Your task to perform on an android device: Empty the shopping cart on ebay.com. Search for dell xps on ebay.com, select the first entry, add it to the cart, then select checkout. Image 0: 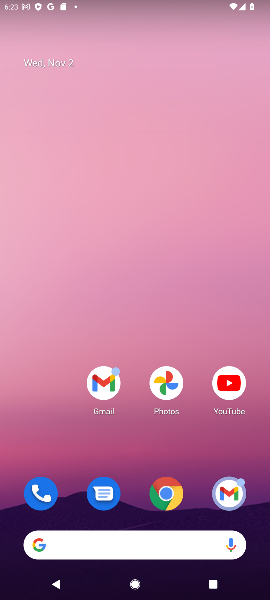
Step 0: drag from (130, 512) to (137, 164)
Your task to perform on an android device: Empty the shopping cart on ebay.com. Search for dell xps on ebay.com, select the first entry, add it to the cart, then select checkout. Image 1: 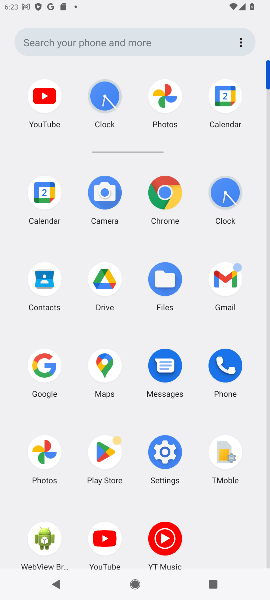
Step 1: click (47, 369)
Your task to perform on an android device: Empty the shopping cart on ebay.com. Search for dell xps on ebay.com, select the first entry, add it to the cart, then select checkout. Image 2: 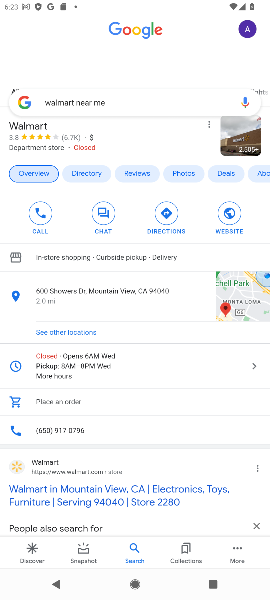
Step 2: click (92, 100)
Your task to perform on an android device: Empty the shopping cart on ebay.com. Search for dell xps on ebay.com, select the first entry, add it to the cart, then select checkout. Image 3: 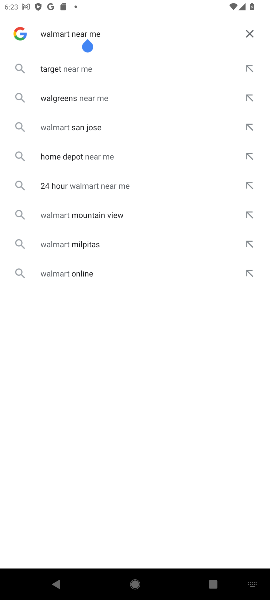
Step 3: click (247, 30)
Your task to perform on an android device: Empty the shopping cart on ebay.com. Search for dell xps on ebay.com, select the first entry, add it to the cart, then select checkout. Image 4: 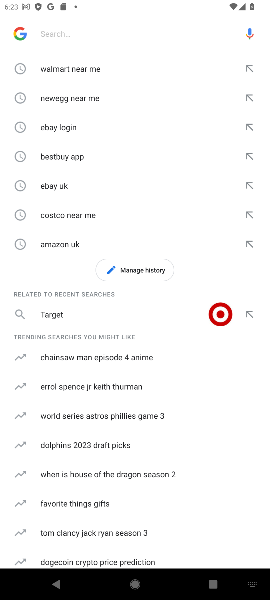
Step 4: click (44, 31)
Your task to perform on an android device: Empty the shopping cart on ebay.com. Search for dell xps on ebay.com, select the first entry, add it to the cart, then select checkout. Image 5: 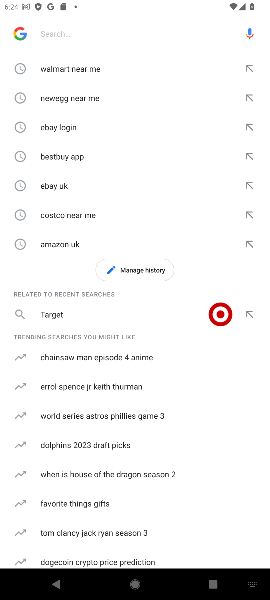
Step 5: type "ebay "
Your task to perform on an android device: Empty the shopping cart on ebay.com. Search for dell xps on ebay.com, select the first entry, add it to the cart, then select checkout. Image 6: 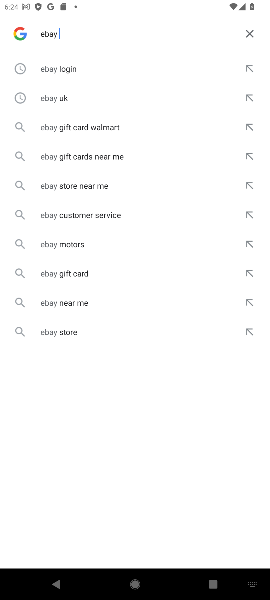
Step 6: click (54, 96)
Your task to perform on an android device: Empty the shopping cart on ebay.com. Search for dell xps on ebay.com, select the first entry, add it to the cart, then select checkout. Image 7: 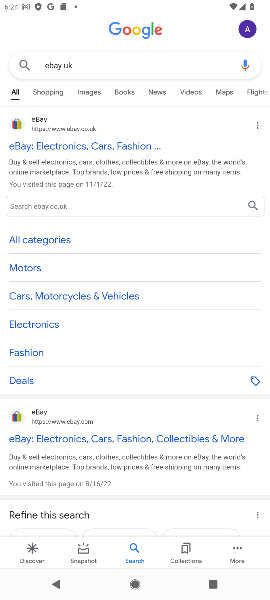
Step 7: click (16, 139)
Your task to perform on an android device: Empty the shopping cart on ebay.com. Search for dell xps on ebay.com, select the first entry, add it to the cart, then select checkout. Image 8: 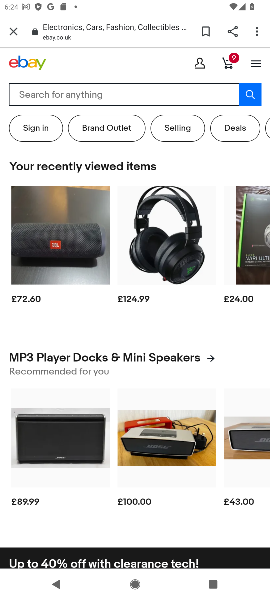
Step 8: click (123, 86)
Your task to perform on an android device: Empty the shopping cart on ebay.com. Search for dell xps on ebay.com, select the first entry, add it to the cart, then select checkout. Image 9: 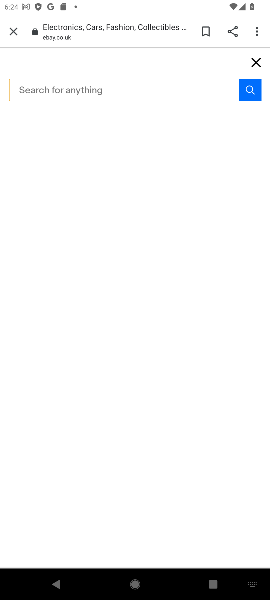
Step 9: type "dell xps "
Your task to perform on an android device: Empty the shopping cart on ebay.com. Search for dell xps on ebay.com, select the first entry, add it to the cart, then select checkout. Image 10: 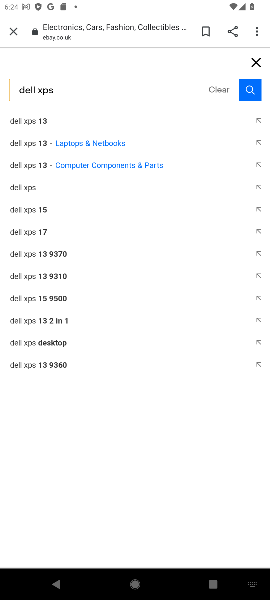
Step 10: click (33, 91)
Your task to perform on an android device: Empty the shopping cart on ebay.com. Search for dell xps on ebay.com, select the first entry, add it to the cart, then select checkout. Image 11: 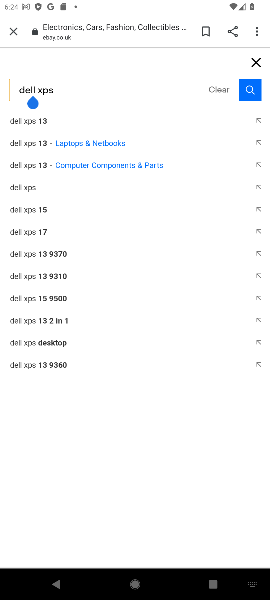
Step 11: click (9, 185)
Your task to perform on an android device: Empty the shopping cart on ebay.com. Search for dell xps on ebay.com, select the first entry, add it to the cart, then select checkout. Image 12: 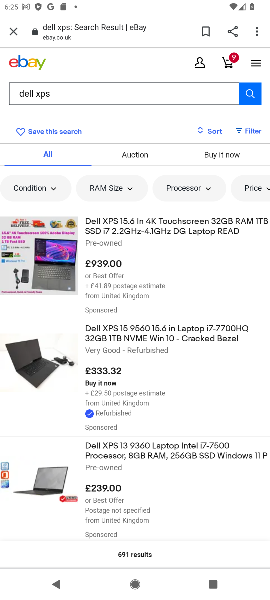
Step 12: click (104, 235)
Your task to perform on an android device: Empty the shopping cart on ebay.com. Search for dell xps on ebay.com, select the first entry, add it to the cart, then select checkout. Image 13: 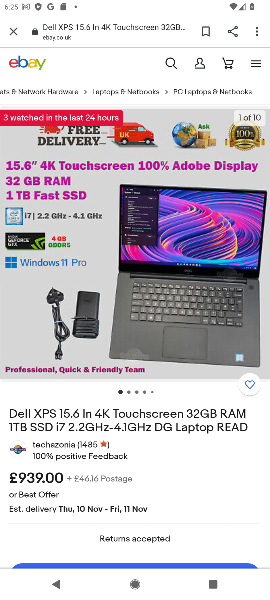
Step 13: drag from (109, 467) to (164, 196)
Your task to perform on an android device: Empty the shopping cart on ebay.com. Search for dell xps on ebay.com, select the first entry, add it to the cart, then select checkout. Image 14: 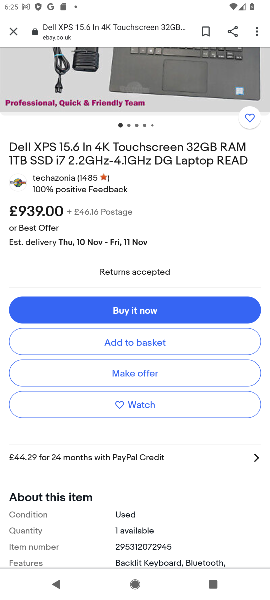
Step 14: click (135, 340)
Your task to perform on an android device: Empty the shopping cart on ebay.com. Search for dell xps on ebay.com, select the first entry, add it to the cart, then select checkout. Image 15: 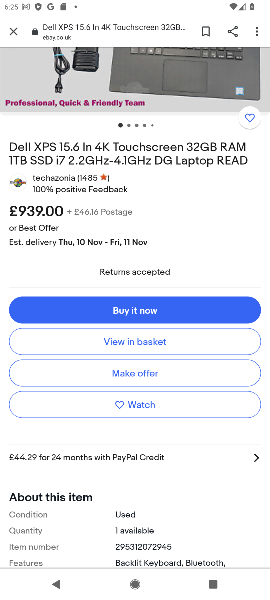
Step 15: click (146, 334)
Your task to perform on an android device: Empty the shopping cart on ebay.com. Search for dell xps on ebay.com, select the first entry, add it to the cart, then select checkout. Image 16: 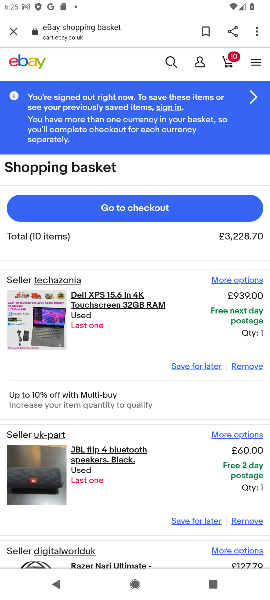
Step 16: task complete